Your task to perform on an android device: add a contact in the contacts app Image 0: 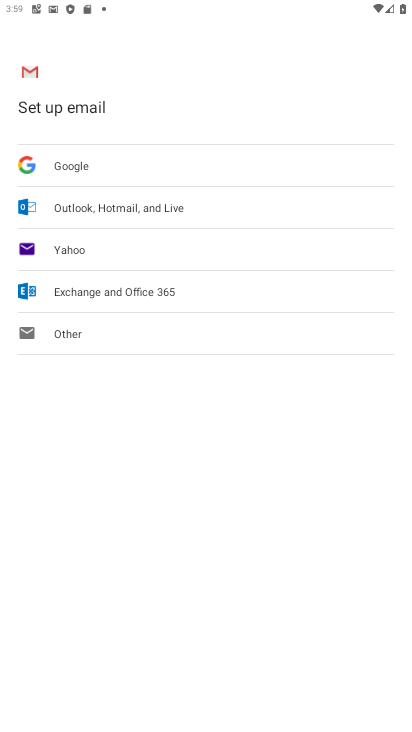
Step 0: press home button
Your task to perform on an android device: add a contact in the contacts app Image 1: 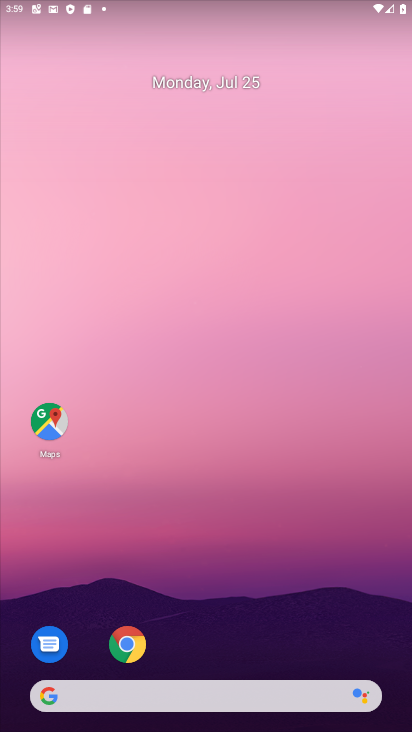
Step 1: drag from (263, 534) to (268, 79)
Your task to perform on an android device: add a contact in the contacts app Image 2: 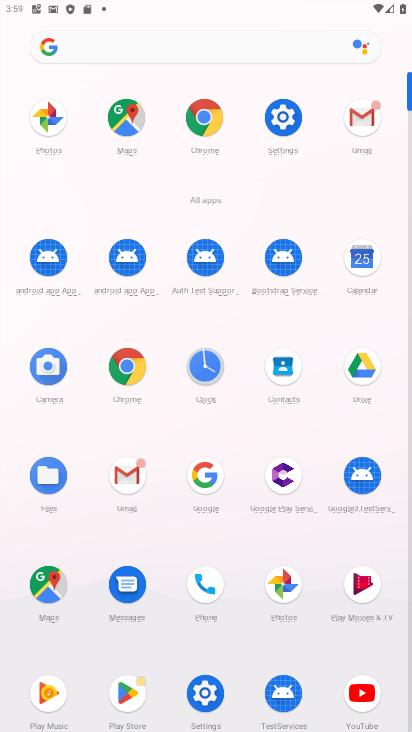
Step 2: click (284, 362)
Your task to perform on an android device: add a contact in the contacts app Image 3: 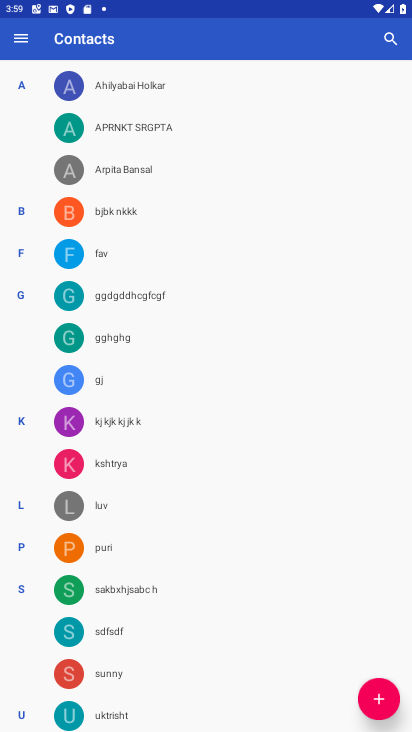
Step 3: click (372, 699)
Your task to perform on an android device: add a contact in the contacts app Image 4: 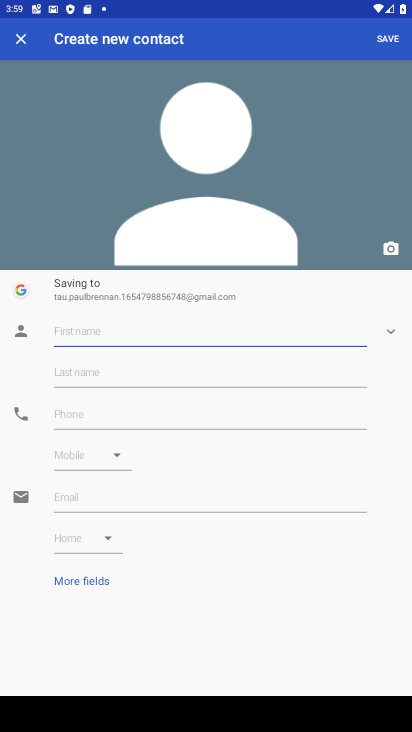
Step 4: type "dghhghgghh"
Your task to perform on an android device: add a contact in the contacts app Image 5: 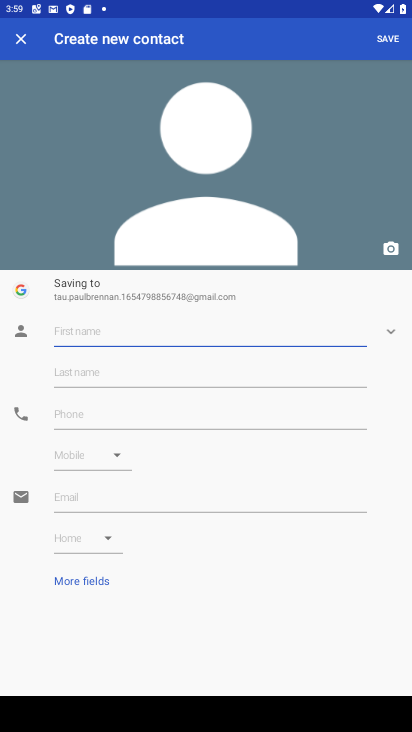
Step 5: click (83, 335)
Your task to perform on an android device: add a contact in the contacts app Image 6: 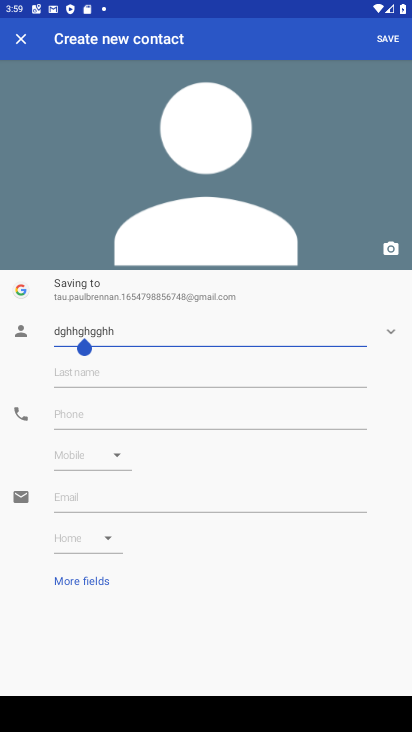
Step 6: click (85, 409)
Your task to perform on an android device: add a contact in the contacts app Image 7: 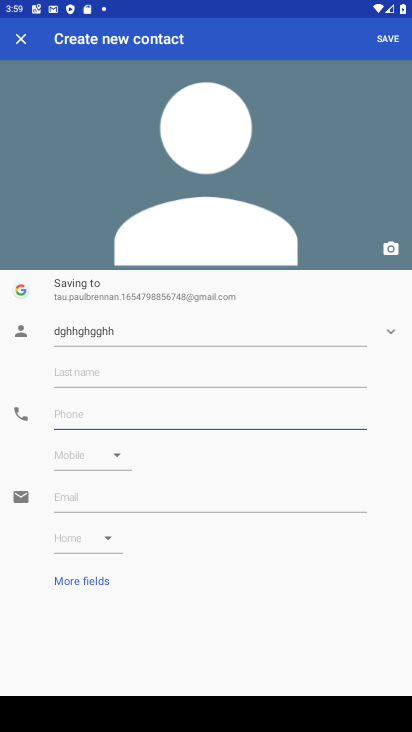
Step 7: type "554364656565"
Your task to perform on an android device: add a contact in the contacts app Image 8: 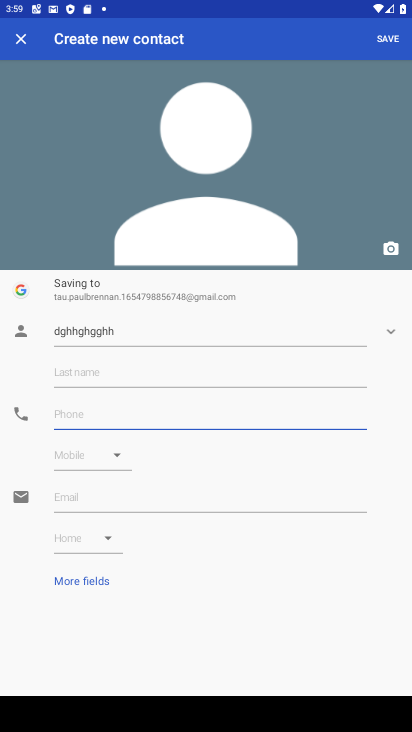
Step 8: click (104, 410)
Your task to perform on an android device: add a contact in the contacts app Image 9: 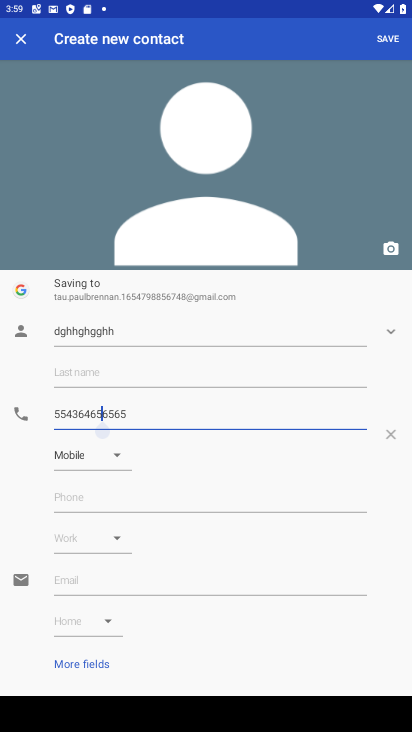
Step 9: click (399, 40)
Your task to perform on an android device: add a contact in the contacts app Image 10: 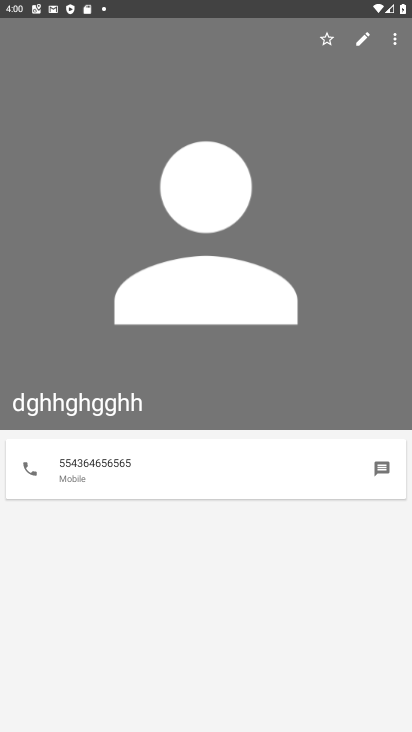
Step 10: task complete